Your task to perform on an android device: Go to privacy settings Image 0: 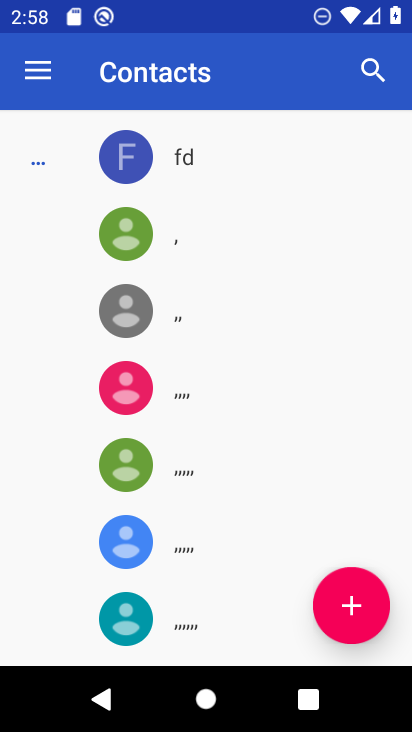
Step 0: press home button
Your task to perform on an android device: Go to privacy settings Image 1: 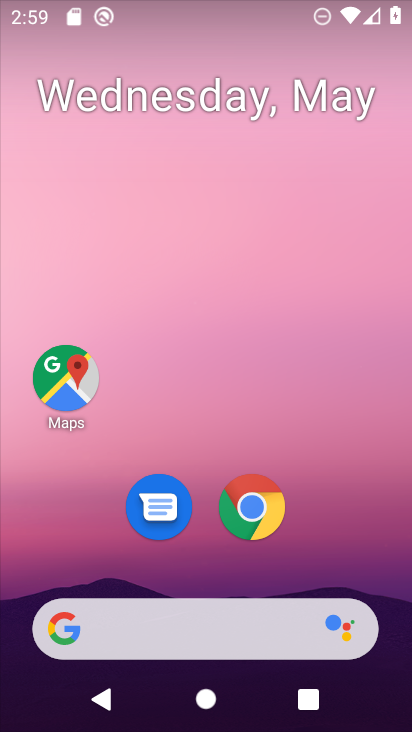
Step 1: drag from (232, 563) to (254, 199)
Your task to perform on an android device: Go to privacy settings Image 2: 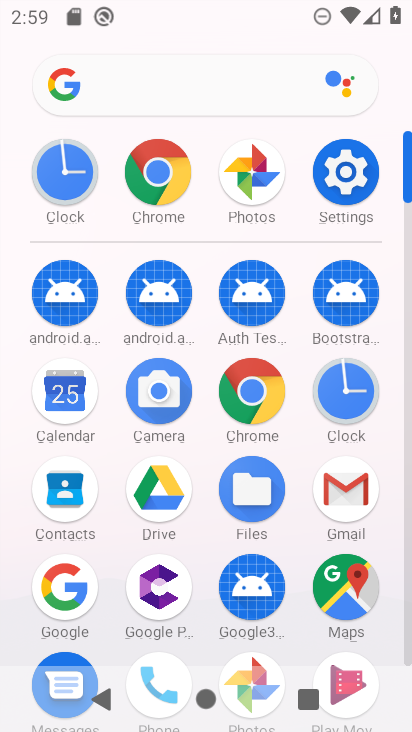
Step 2: drag from (198, 578) to (241, 322)
Your task to perform on an android device: Go to privacy settings Image 3: 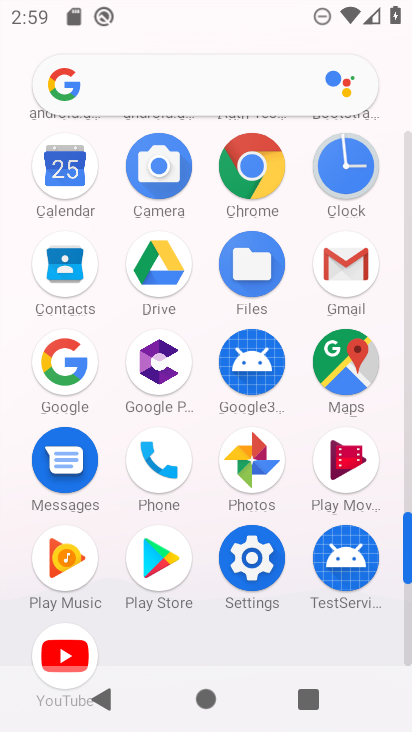
Step 3: click (257, 570)
Your task to perform on an android device: Go to privacy settings Image 4: 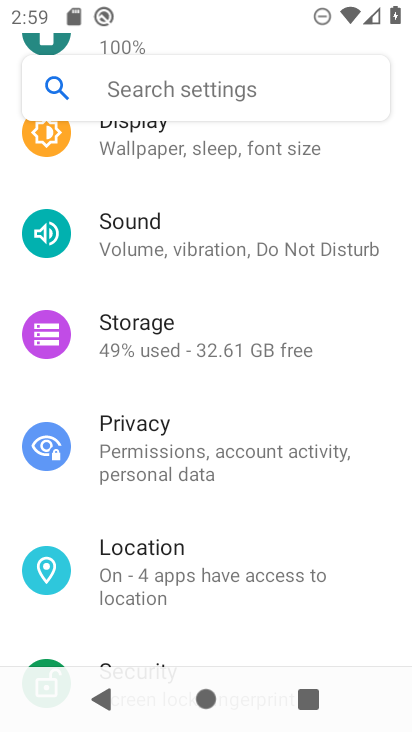
Step 4: click (200, 442)
Your task to perform on an android device: Go to privacy settings Image 5: 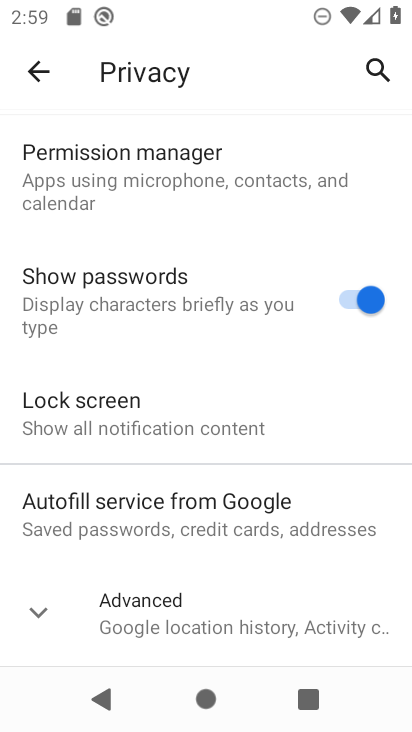
Step 5: task complete